Your task to perform on an android device: Open location settings Image 0: 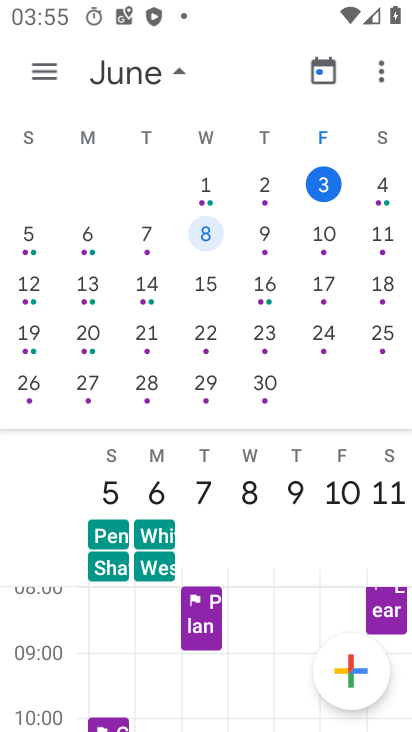
Step 0: press home button
Your task to perform on an android device: Open location settings Image 1: 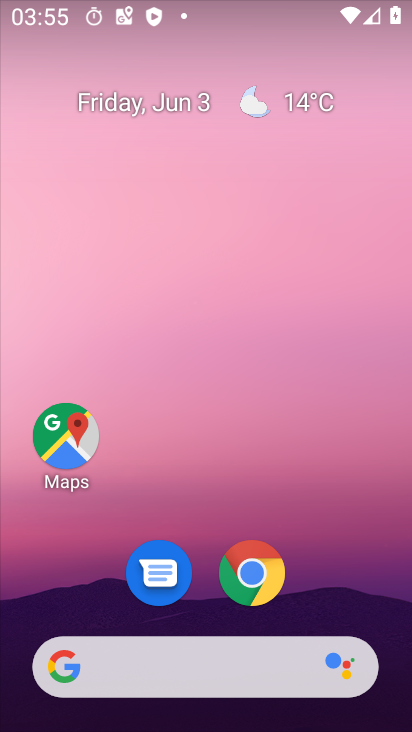
Step 1: drag from (284, 634) to (323, 17)
Your task to perform on an android device: Open location settings Image 2: 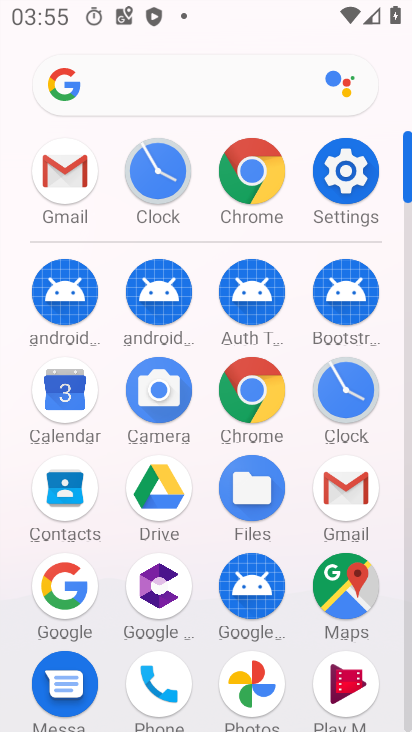
Step 2: click (322, 174)
Your task to perform on an android device: Open location settings Image 3: 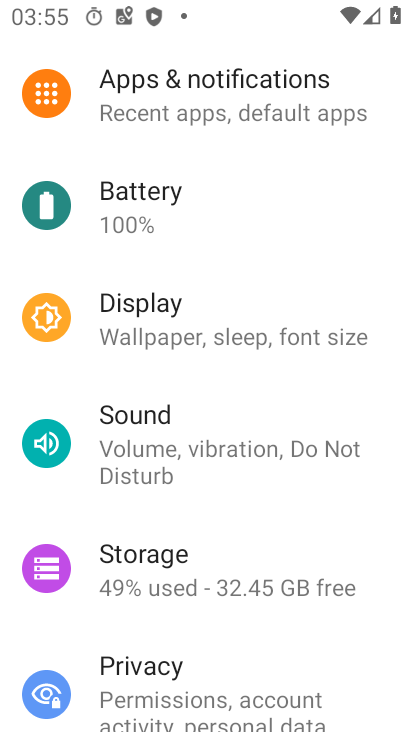
Step 3: drag from (188, 592) to (215, 75)
Your task to perform on an android device: Open location settings Image 4: 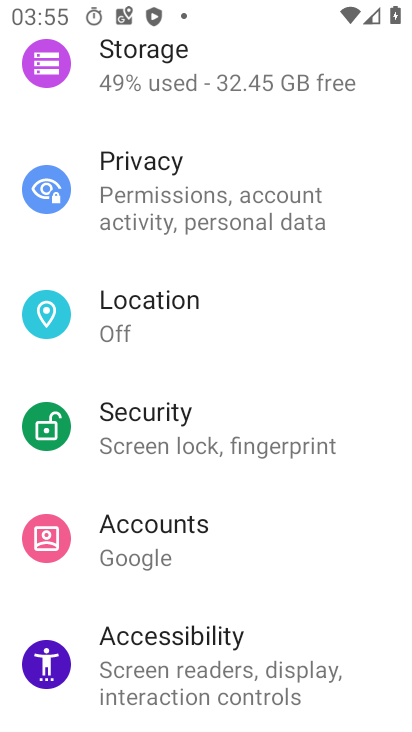
Step 4: click (177, 325)
Your task to perform on an android device: Open location settings Image 5: 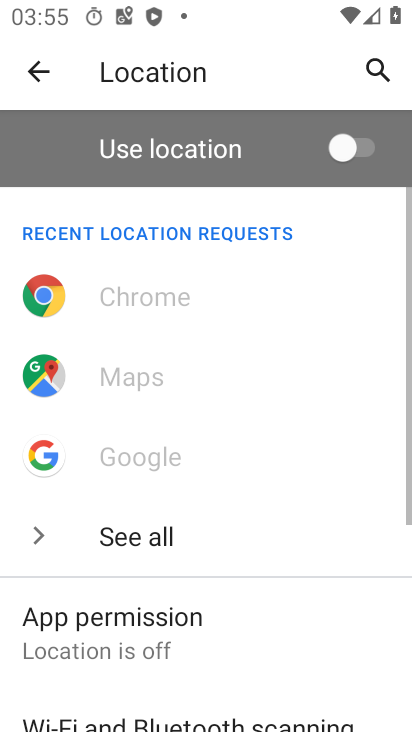
Step 5: task complete